Your task to perform on an android device: change the upload size in google photos Image 0: 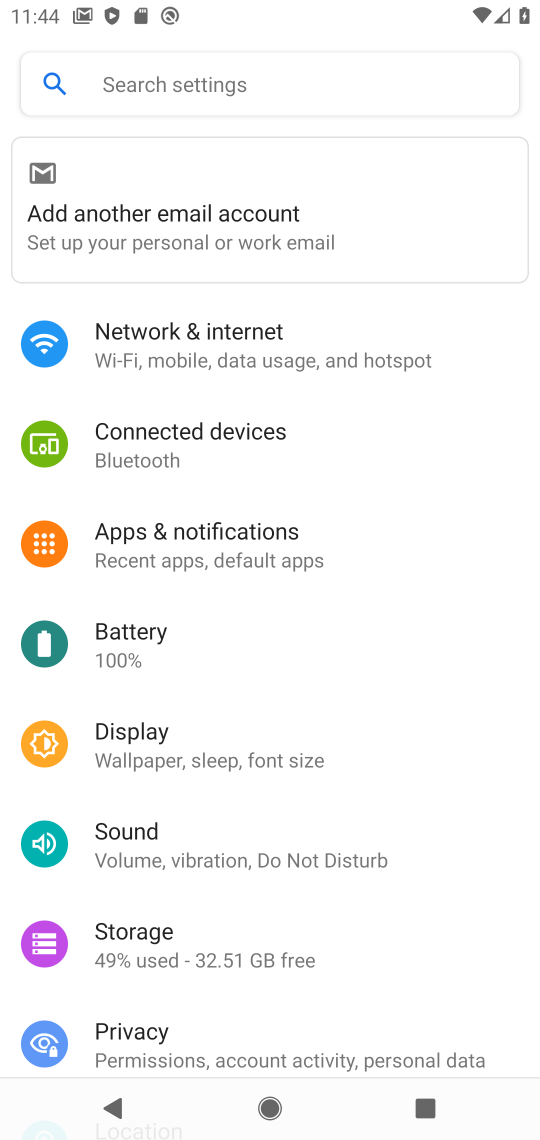
Step 0: press home button
Your task to perform on an android device: change the upload size in google photos Image 1: 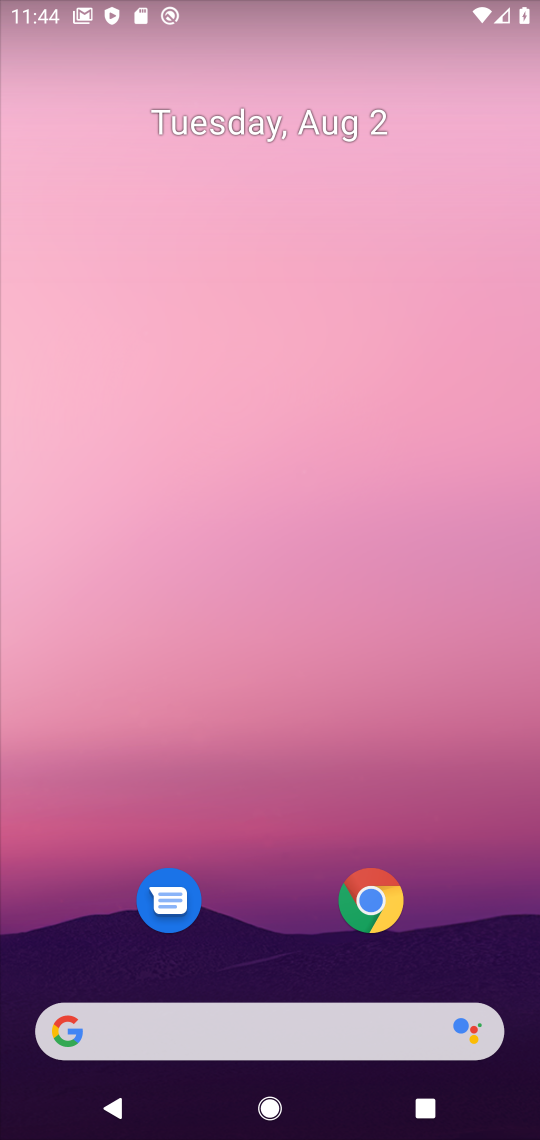
Step 1: drag from (264, 612) to (318, 42)
Your task to perform on an android device: change the upload size in google photos Image 2: 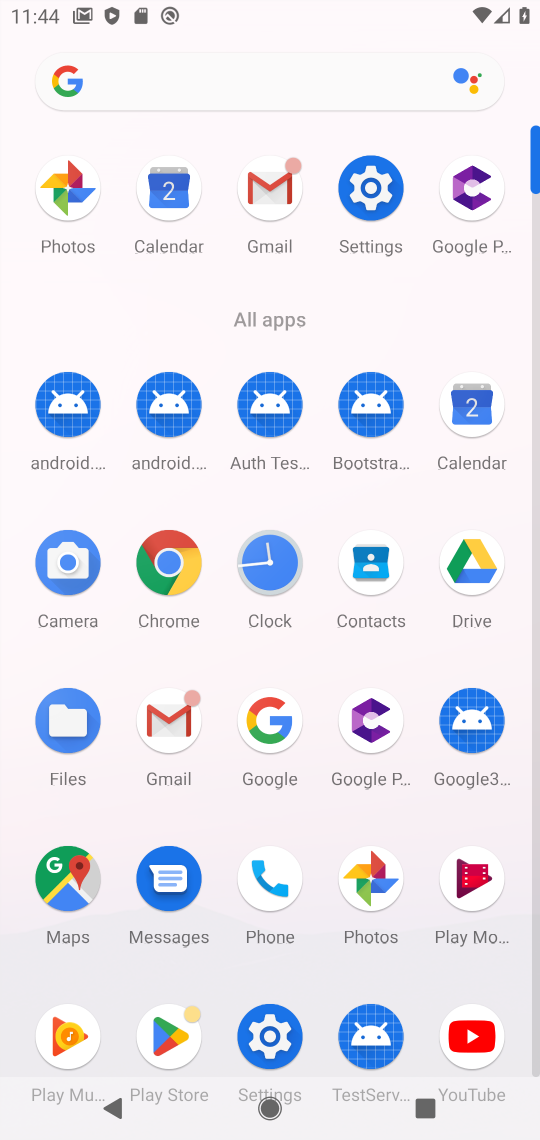
Step 2: click (387, 859)
Your task to perform on an android device: change the upload size in google photos Image 3: 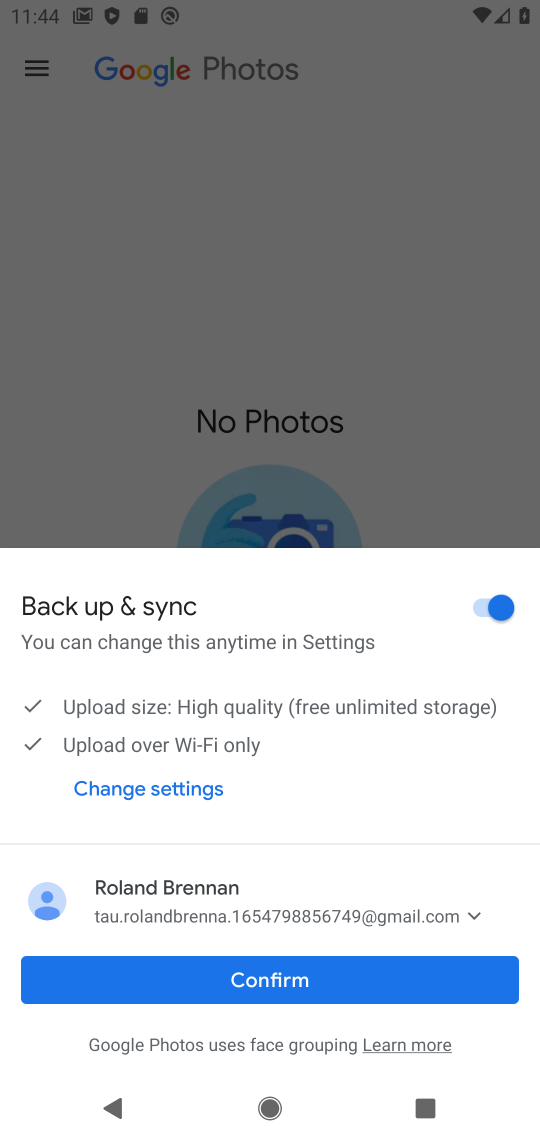
Step 3: click (348, 986)
Your task to perform on an android device: change the upload size in google photos Image 4: 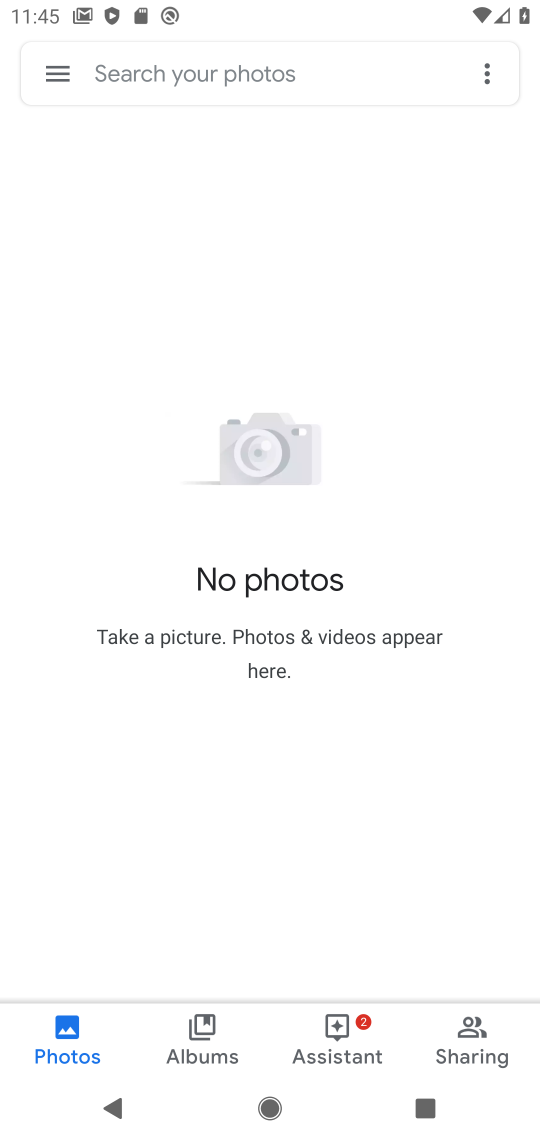
Step 4: click (489, 71)
Your task to perform on an android device: change the upload size in google photos Image 5: 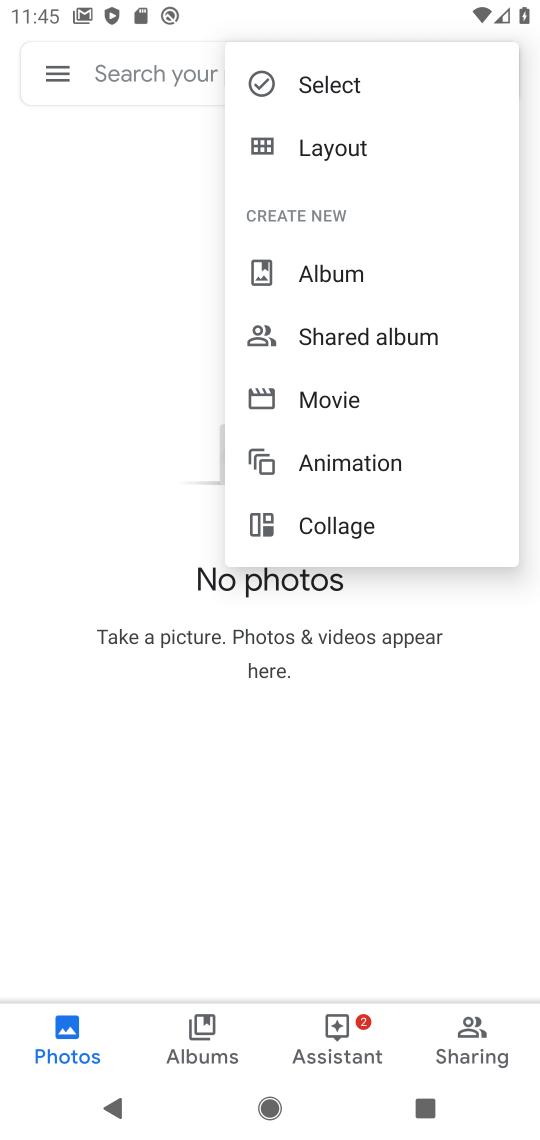
Step 5: click (57, 60)
Your task to perform on an android device: change the upload size in google photos Image 6: 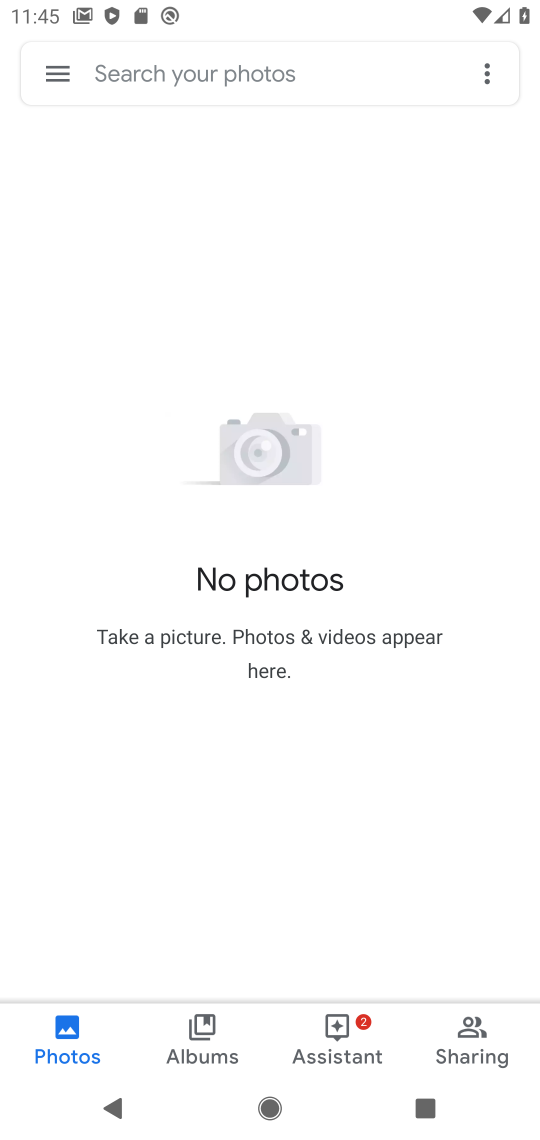
Step 6: click (57, 73)
Your task to perform on an android device: change the upload size in google photos Image 7: 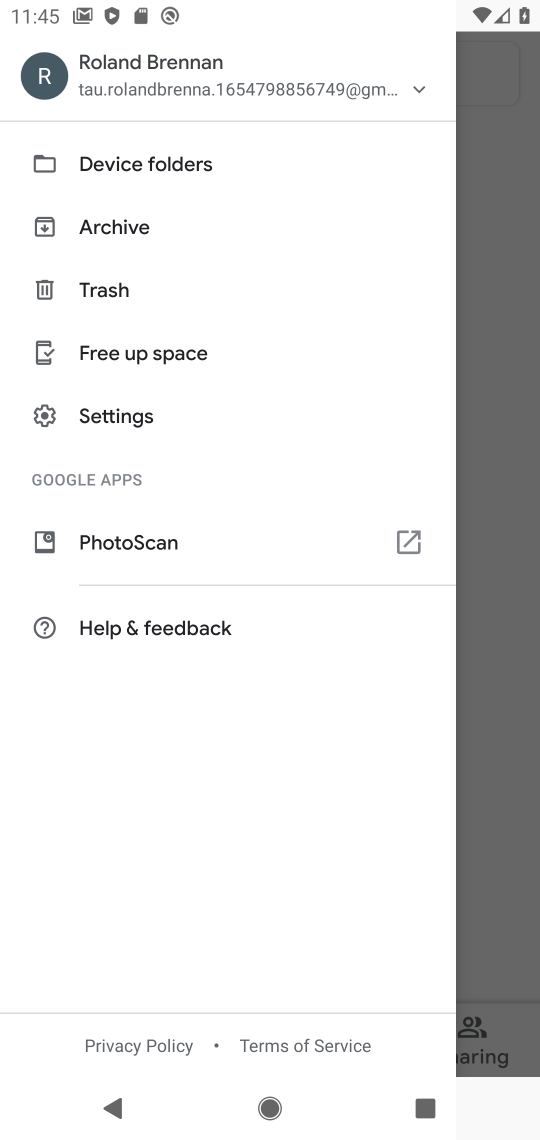
Step 7: click (133, 421)
Your task to perform on an android device: change the upload size in google photos Image 8: 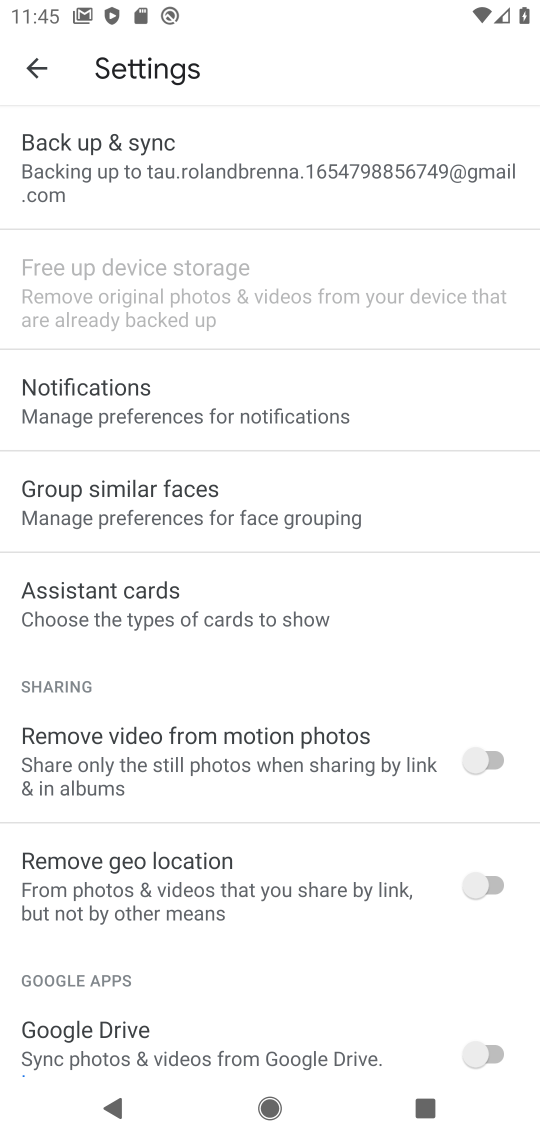
Step 8: click (181, 157)
Your task to perform on an android device: change the upload size in google photos Image 9: 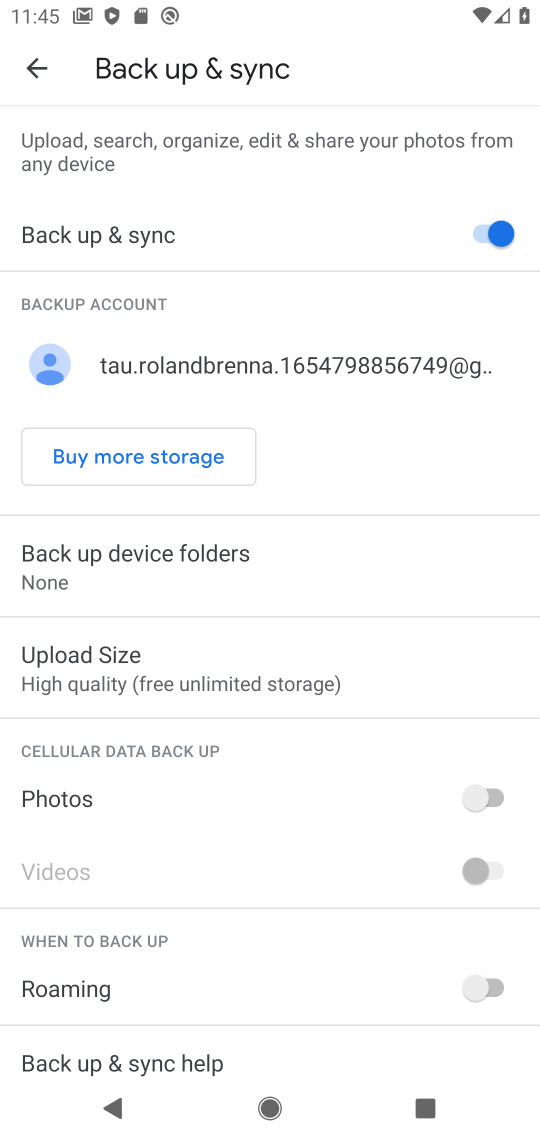
Step 9: click (208, 663)
Your task to perform on an android device: change the upload size in google photos Image 10: 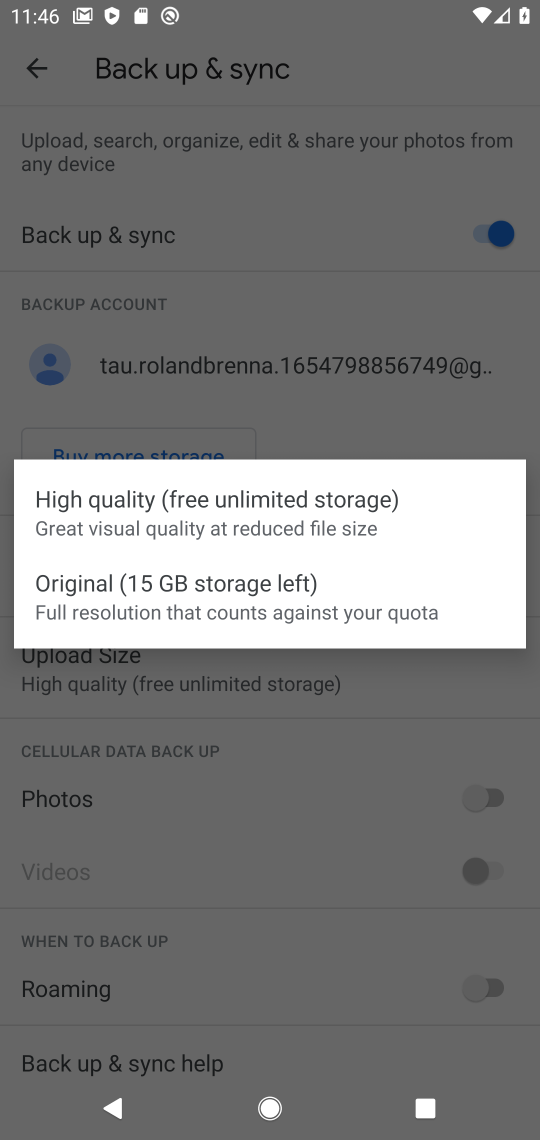
Step 10: click (203, 610)
Your task to perform on an android device: change the upload size in google photos Image 11: 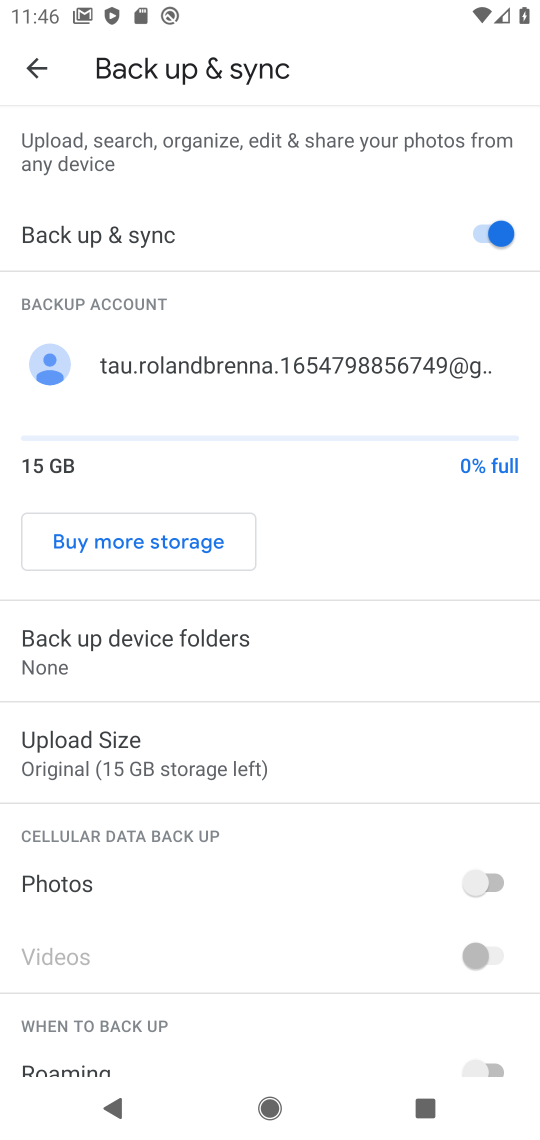
Step 11: task complete